Your task to perform on an android device: Show me the alarms in the clock app Image 0: 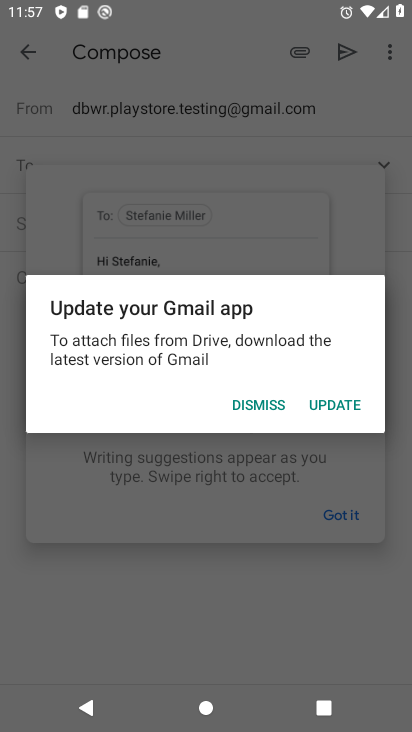
Step 0: press home button
Your task to perform on an android device: Show me the alarms in the clock app Image 1: 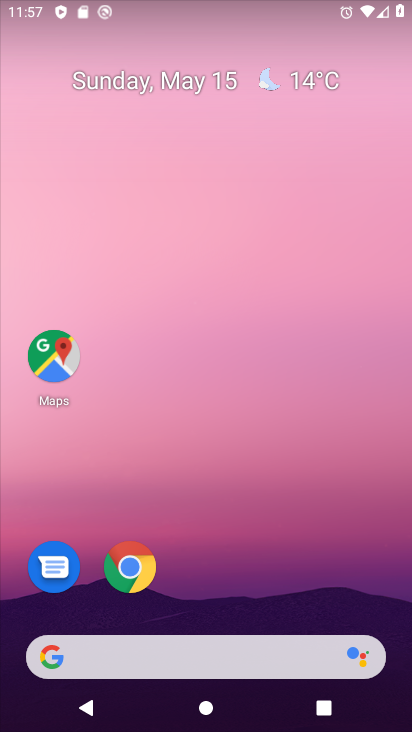
Step 1: drag from (241, 599) to (342, 30)
Your task to perform on an android device: Show me the alarms in the clock app Image 2: 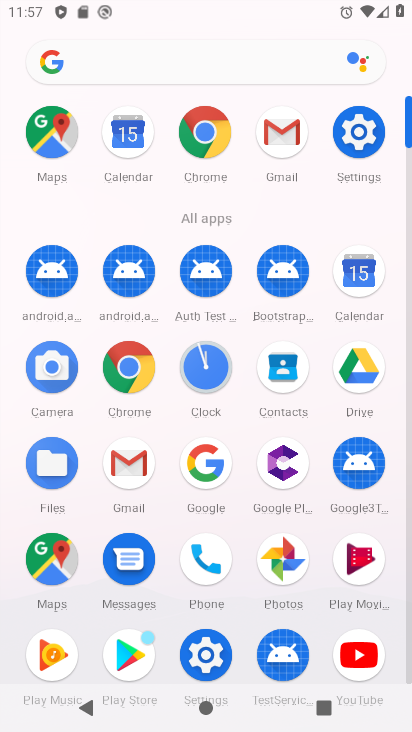
Step 2: click (205, 377)
Your task to perform on an android device: Show me the alarms in the clock app Image 3: 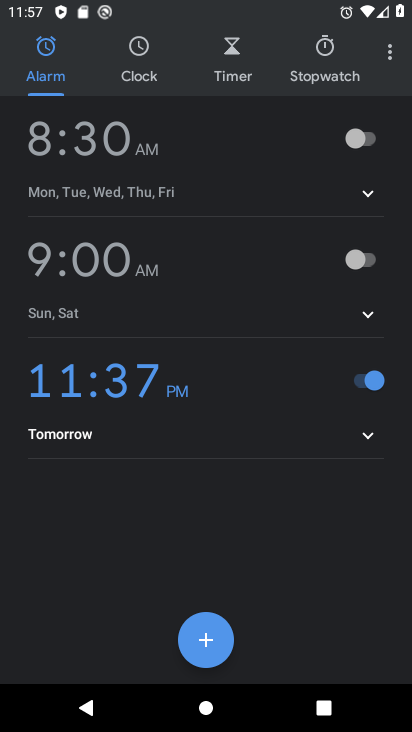
Step 3: task complete